Your task to perform on an android device: Add "usb-a" to the cart on target, then select checkout. Image 0: 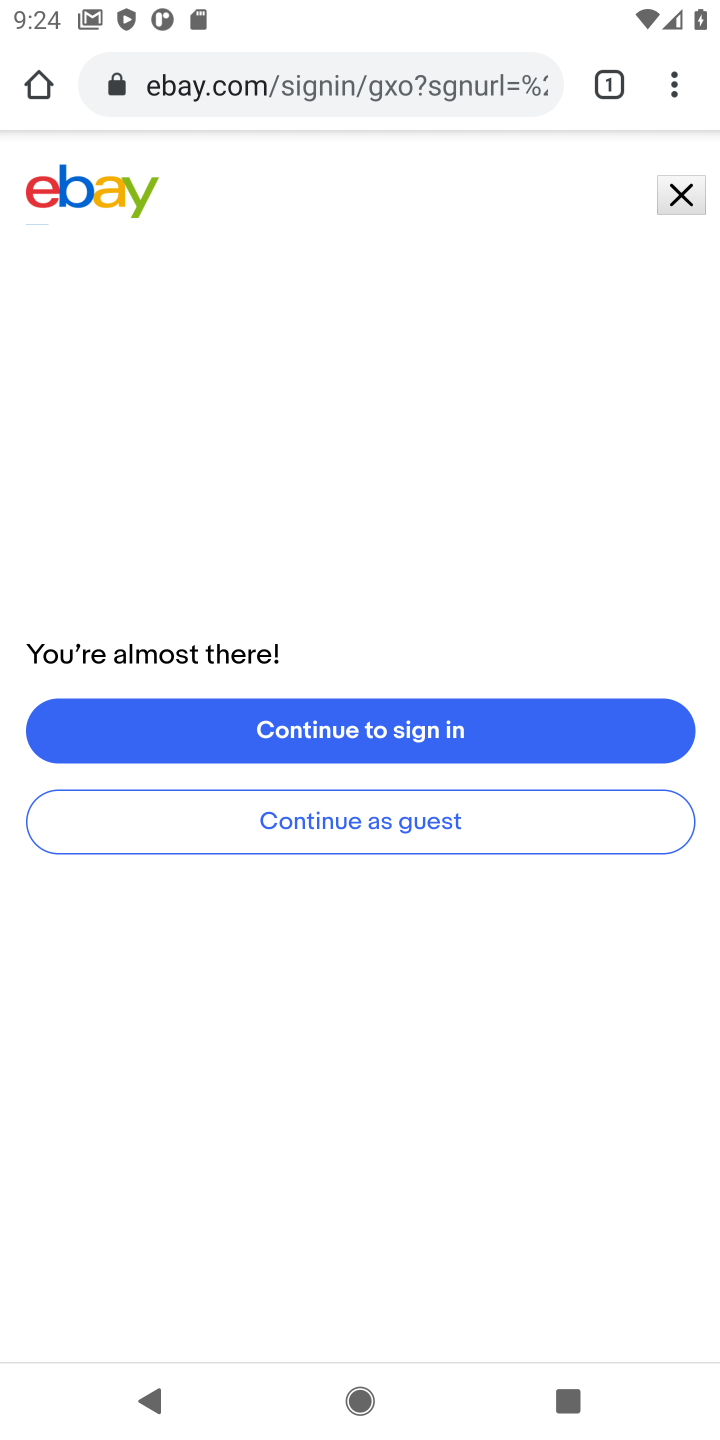
Step 0: press home button
Your task to perform on an android device: Add "usb-a" to the cart on target, then select checkout. Image 1: 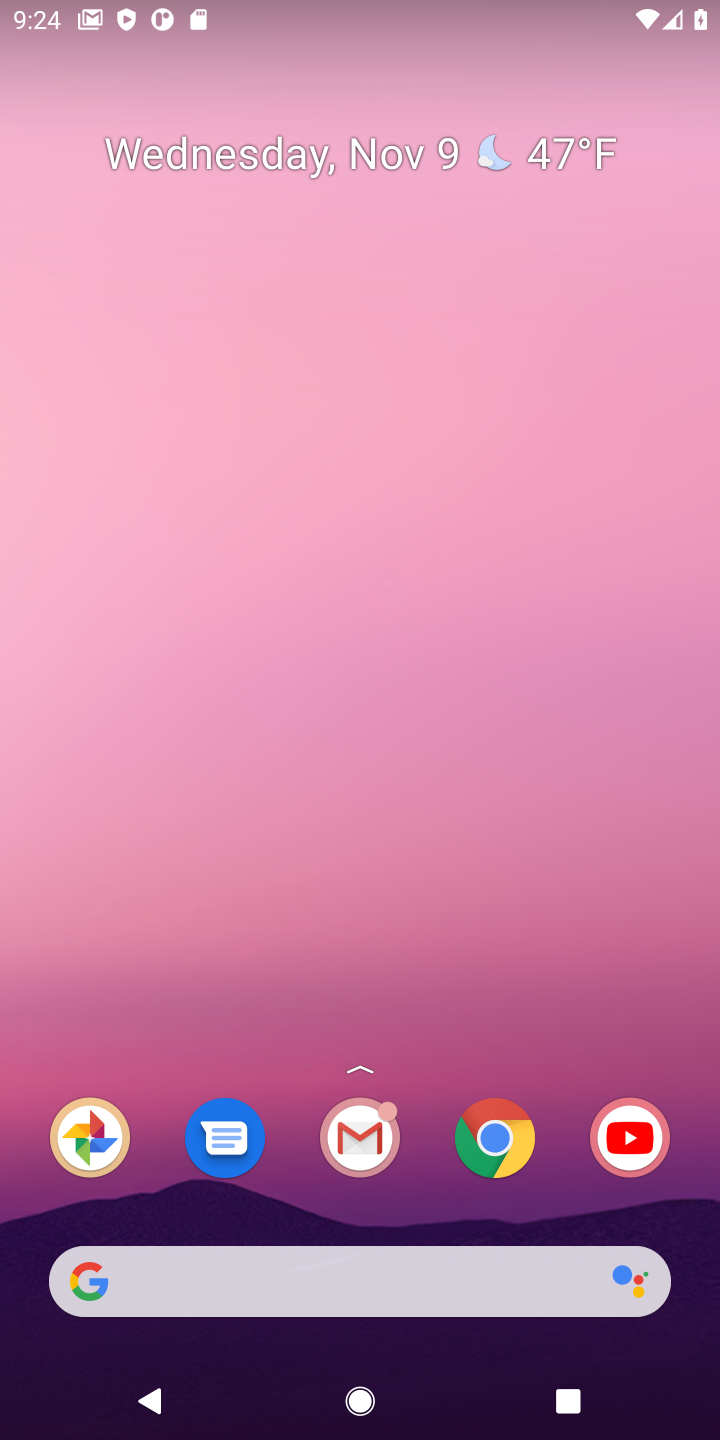
Step 1: drag from (438, 1237) to (466, 34)
Your task to perform on an android device: Add "usb-a" to the cart on target, then select checkout. Image 2: 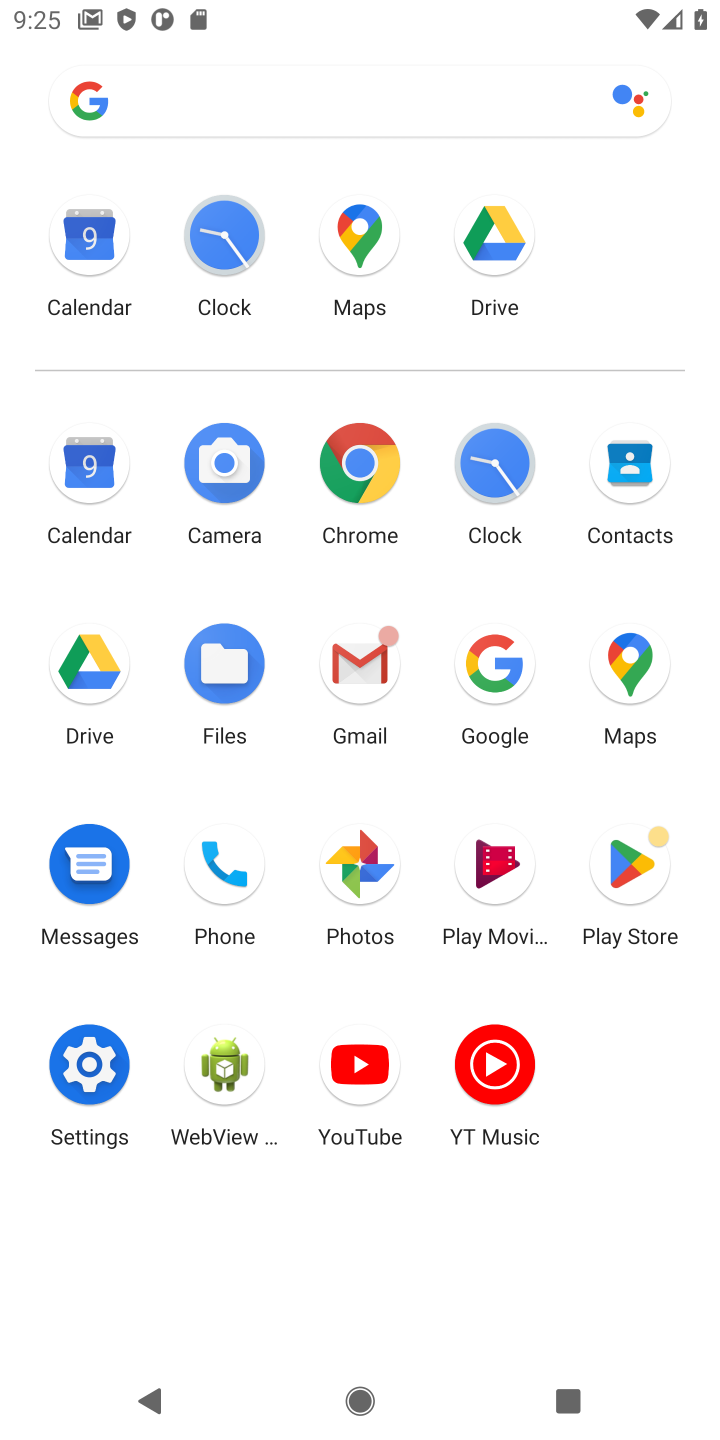
Step 2: click (367, 476)
Your task to perform on an android device: Add "usb-a" to the cart on target, then select checkout. Image 3: 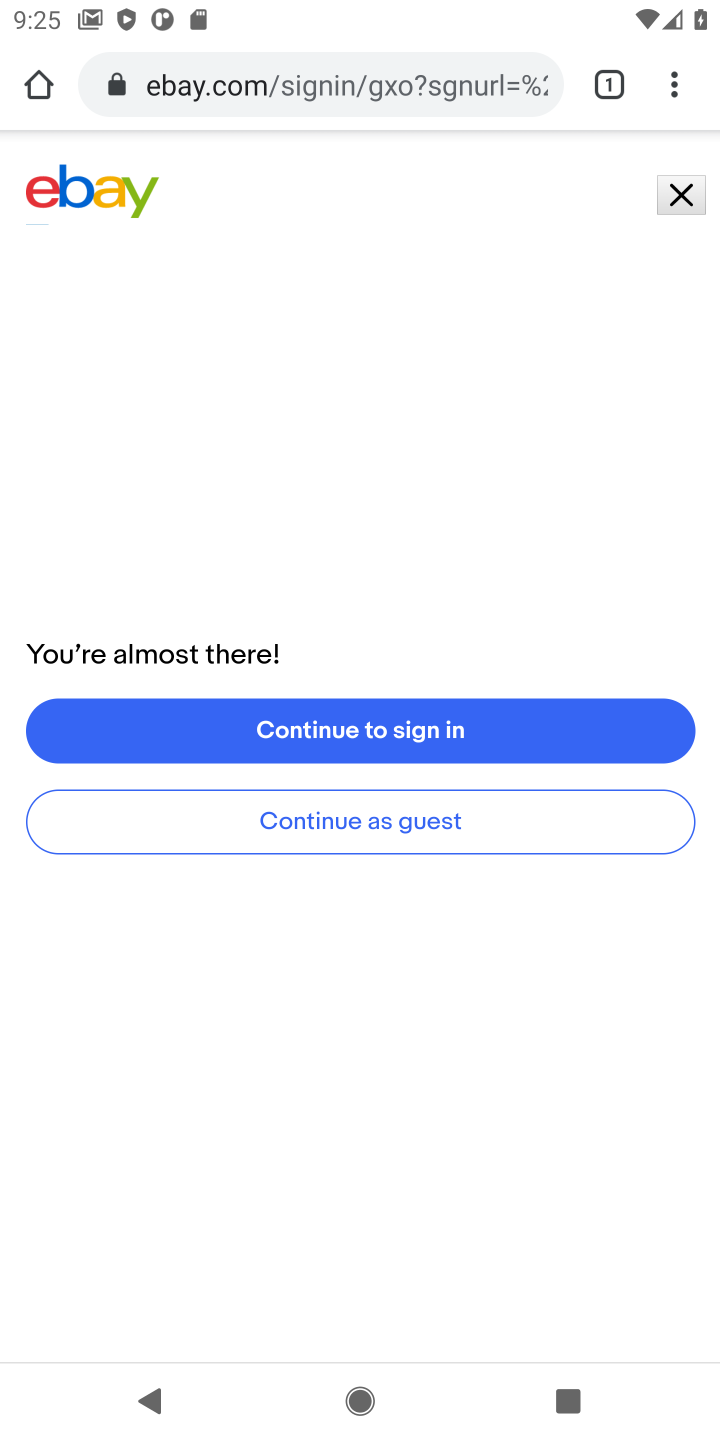
Step 3: click (320, 69)
Your task to perform on an android device: Add "usb-a" to the cart on target, then select checkout. Image 4: 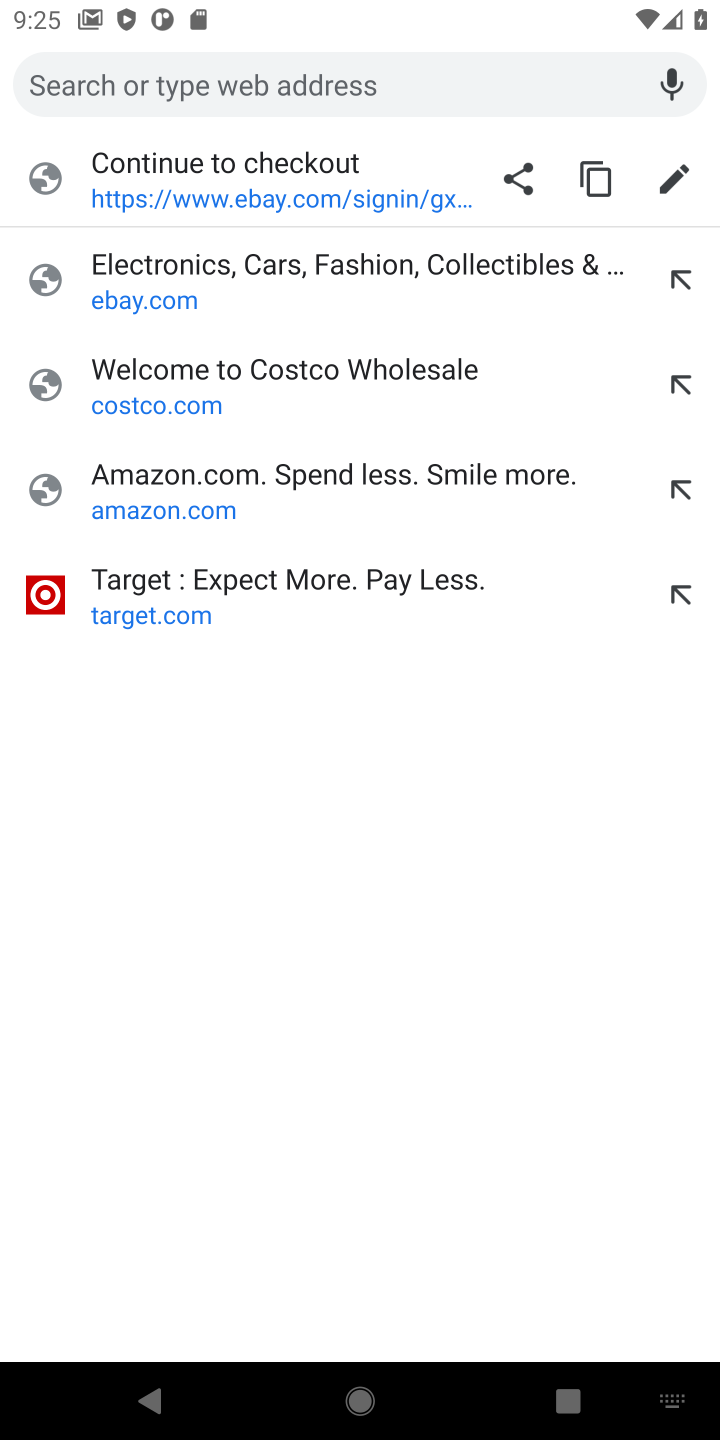
Step 4: type "target.com"
Your task to perform on an android device: Add "usb-a" to the cart on target, then select checkout. Image 5: 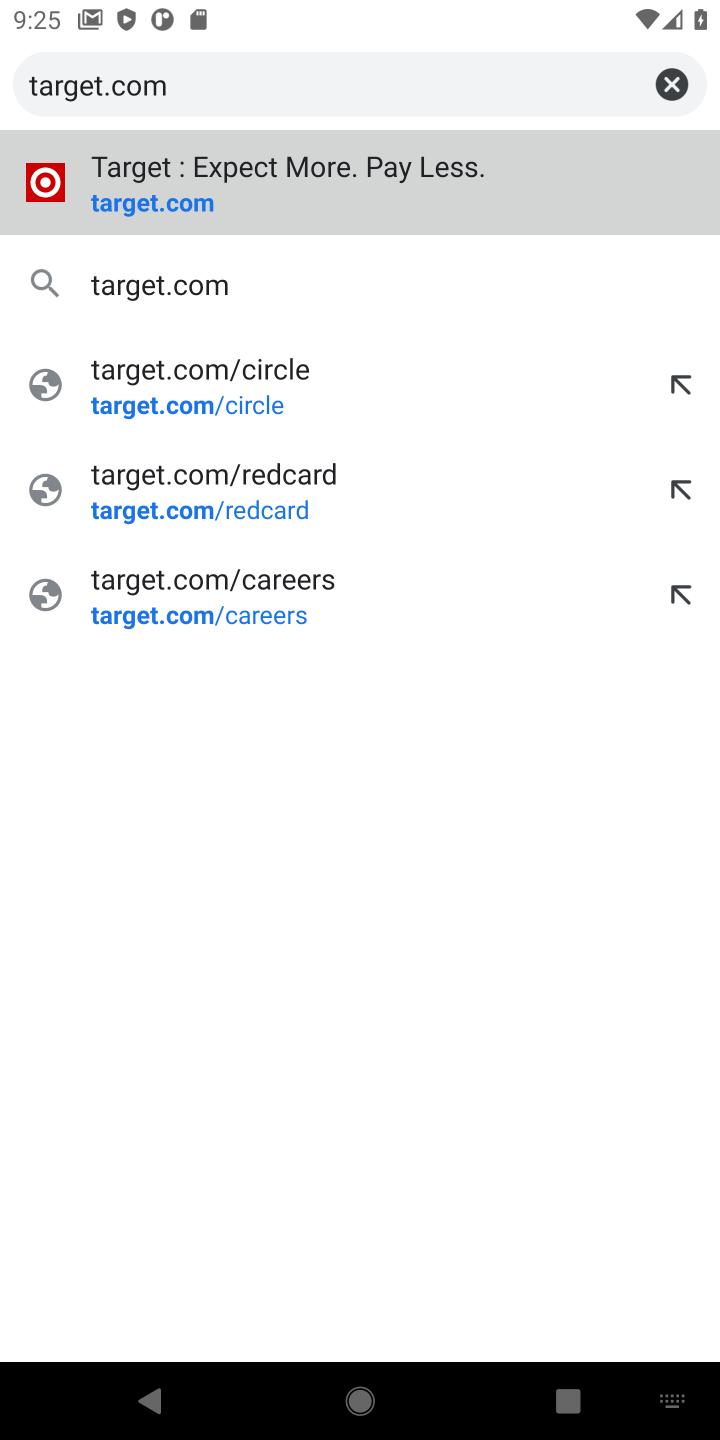
Step 5: press enter
Your task to perform on an android device: Add "usb-a" to the cart on target, then select checkout. Image 6: 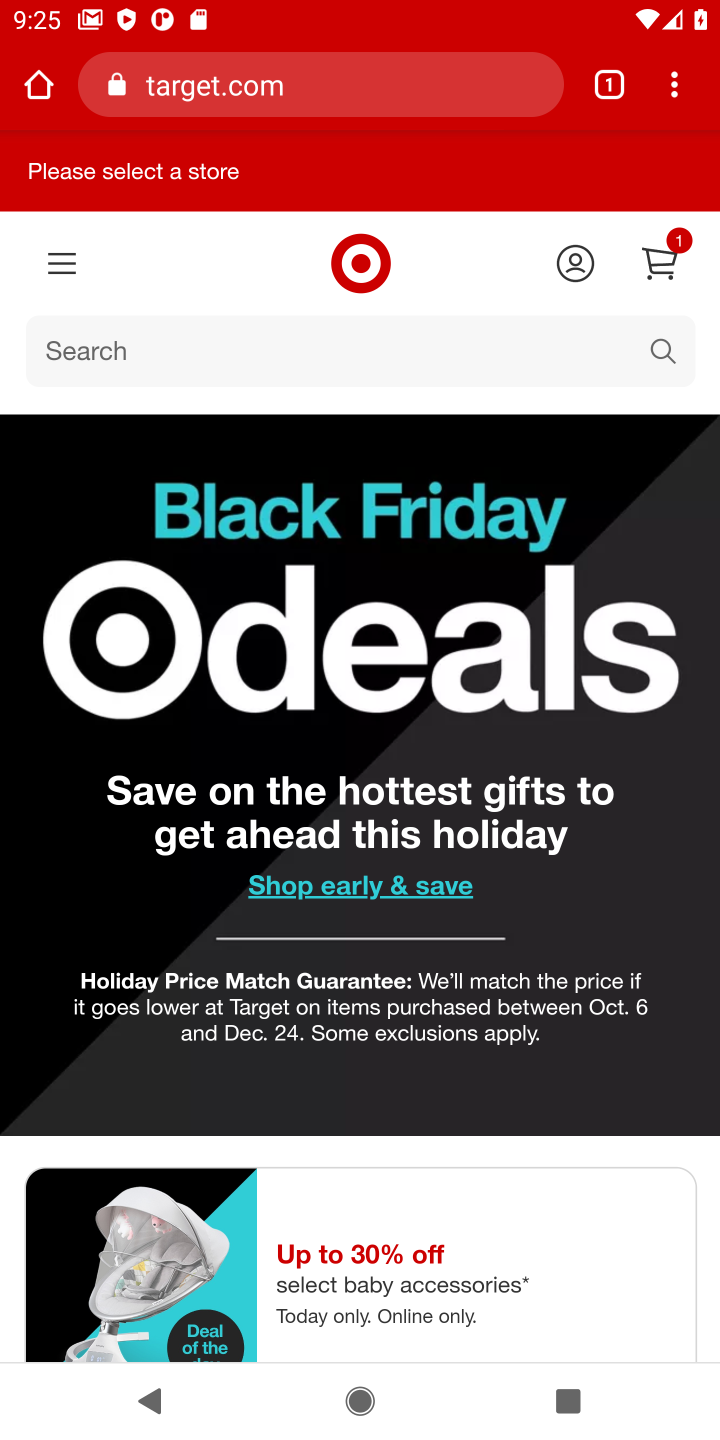
Step 6: click (366, 353)
Your task to perform on an android device: Add "usb-a" to the cart on target, then select checkout. Image 7: 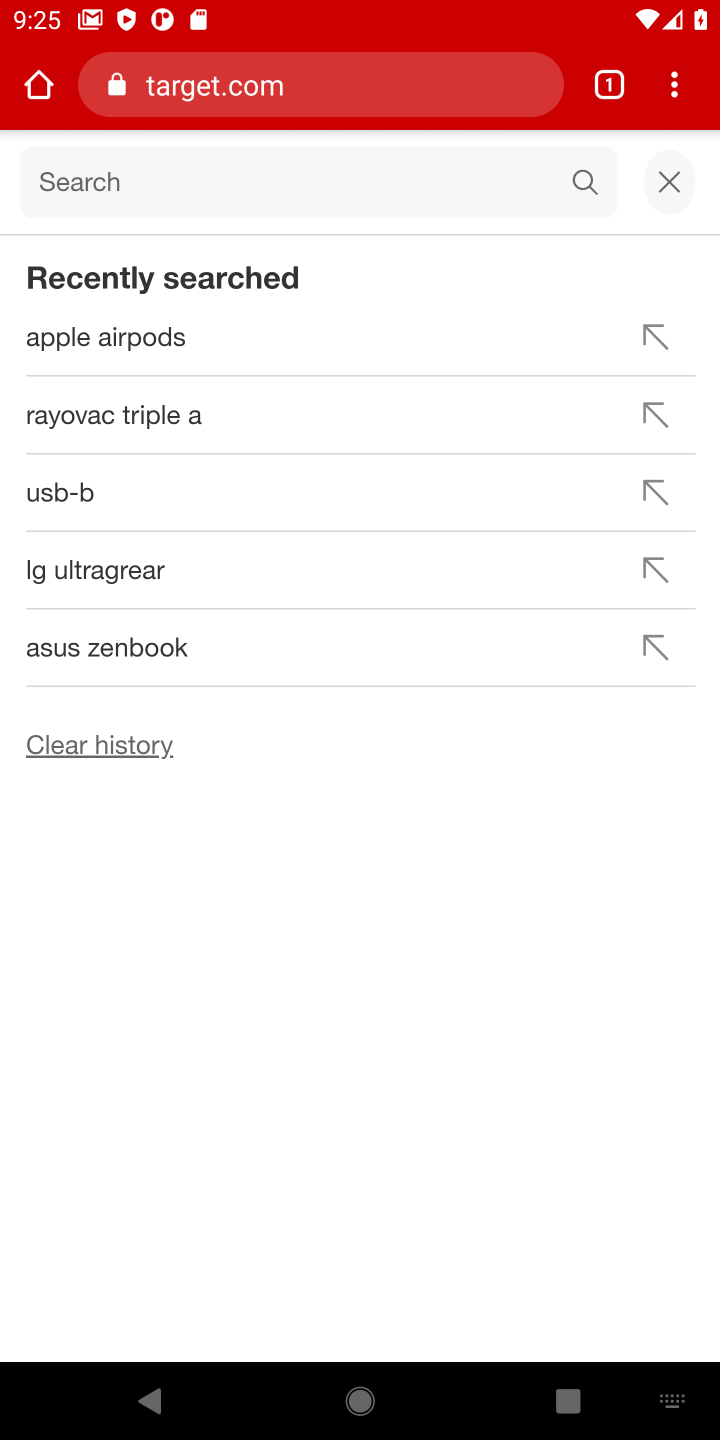
Step 7: type "usb-a"
Your task to perform on an android device: Add "usb-a" to the cart on target, then select checkout. Image 8: 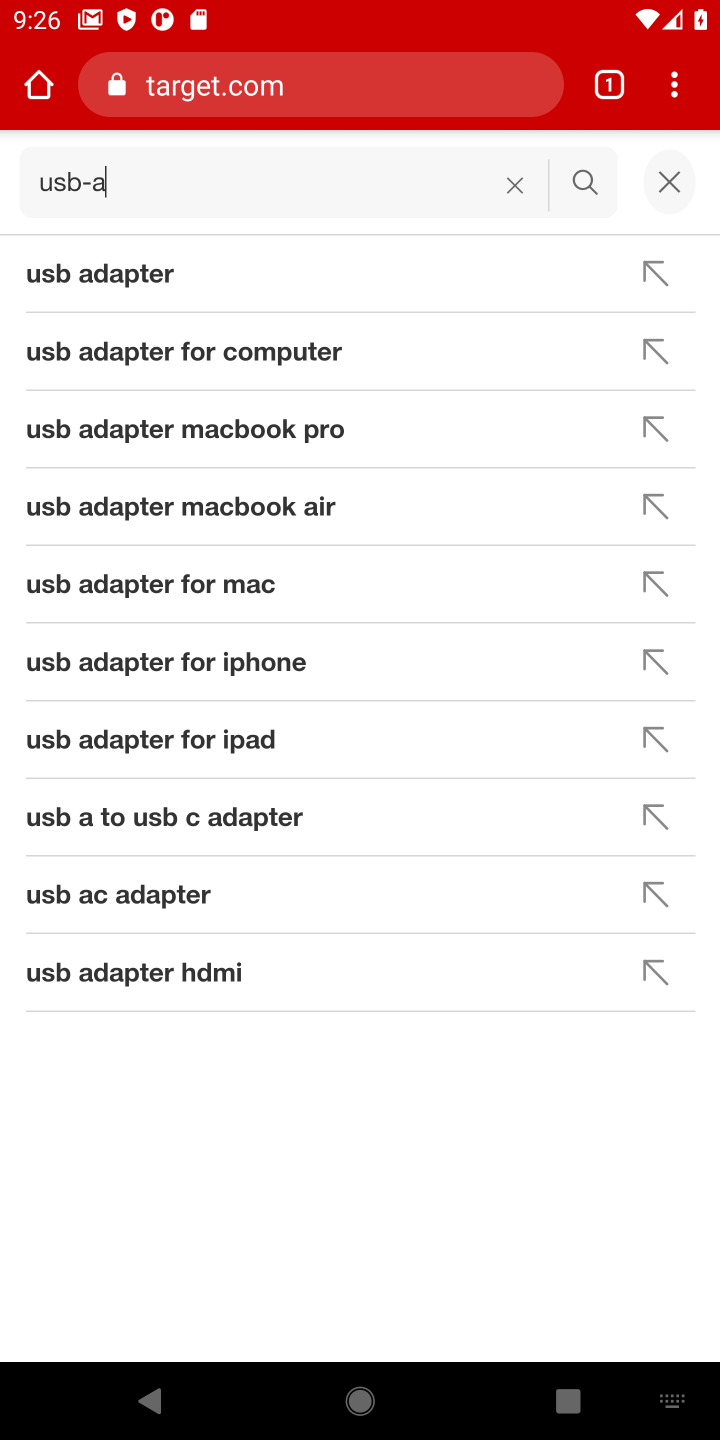
Step 8: press enter
Your task to perform on an android device: Add "usb-a" to the cart on target, then select checkout. Image 9: 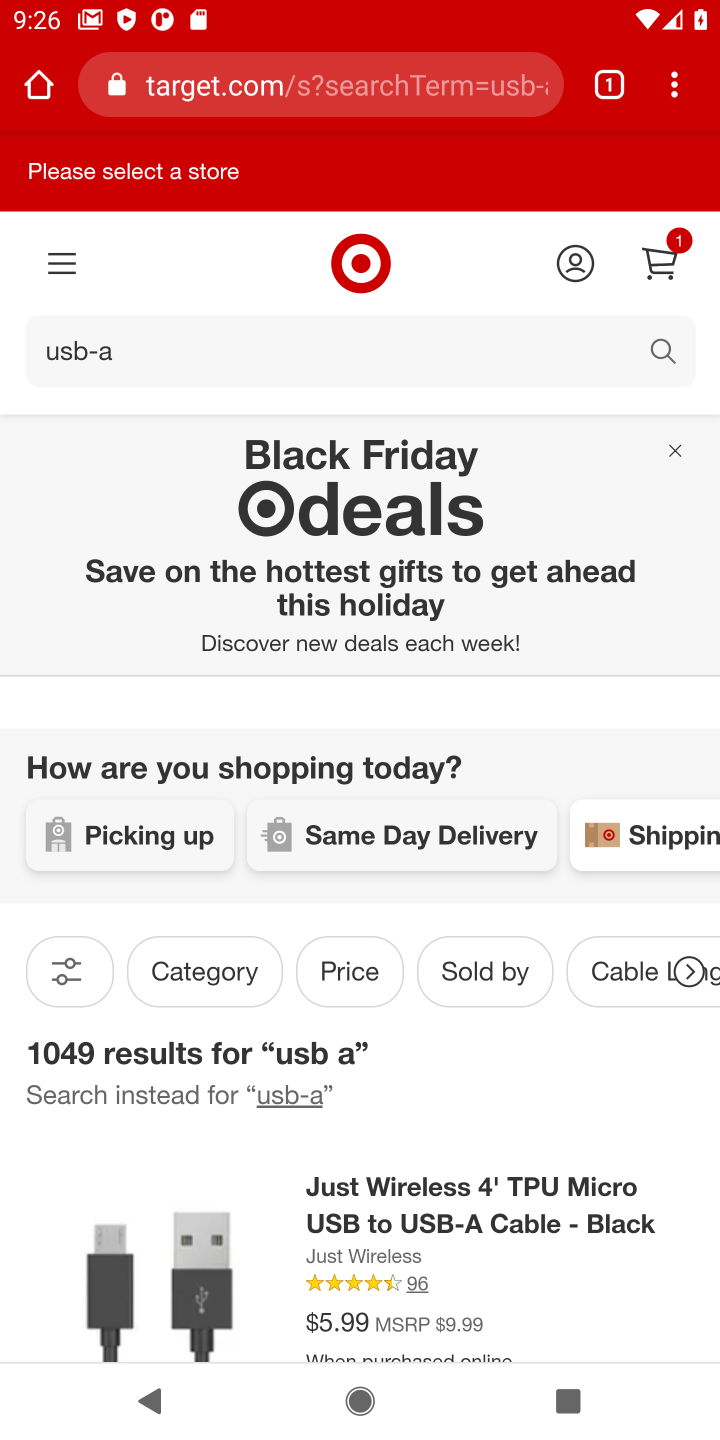
Step 9: drag from (408, 1300) to (286, 695)
Your task to perform on an android device: Add "usb-a" to the cart on target, then select checkout. Image 10: 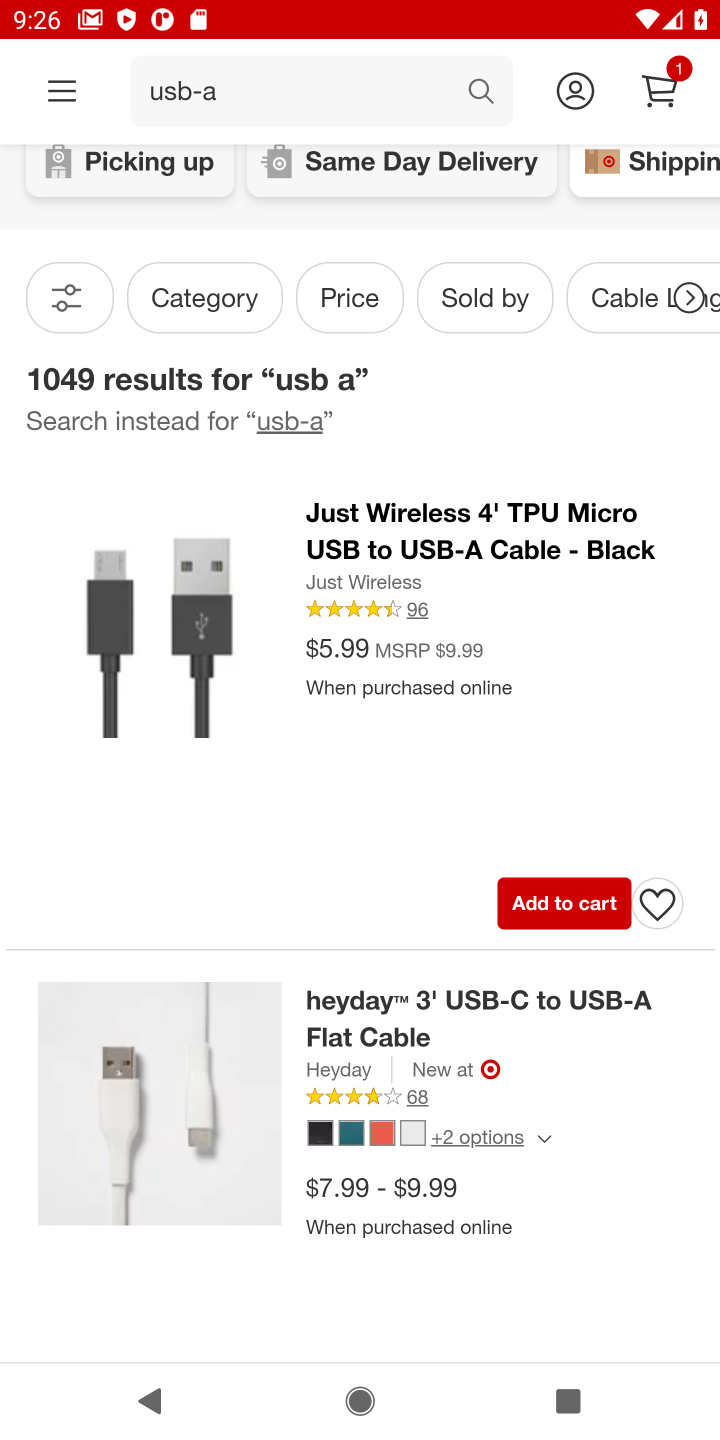
Step 10: click (571, 892)
Your task to perform on an android device: Add "usb-a" to the cart on target, then select checkout. Image 11: 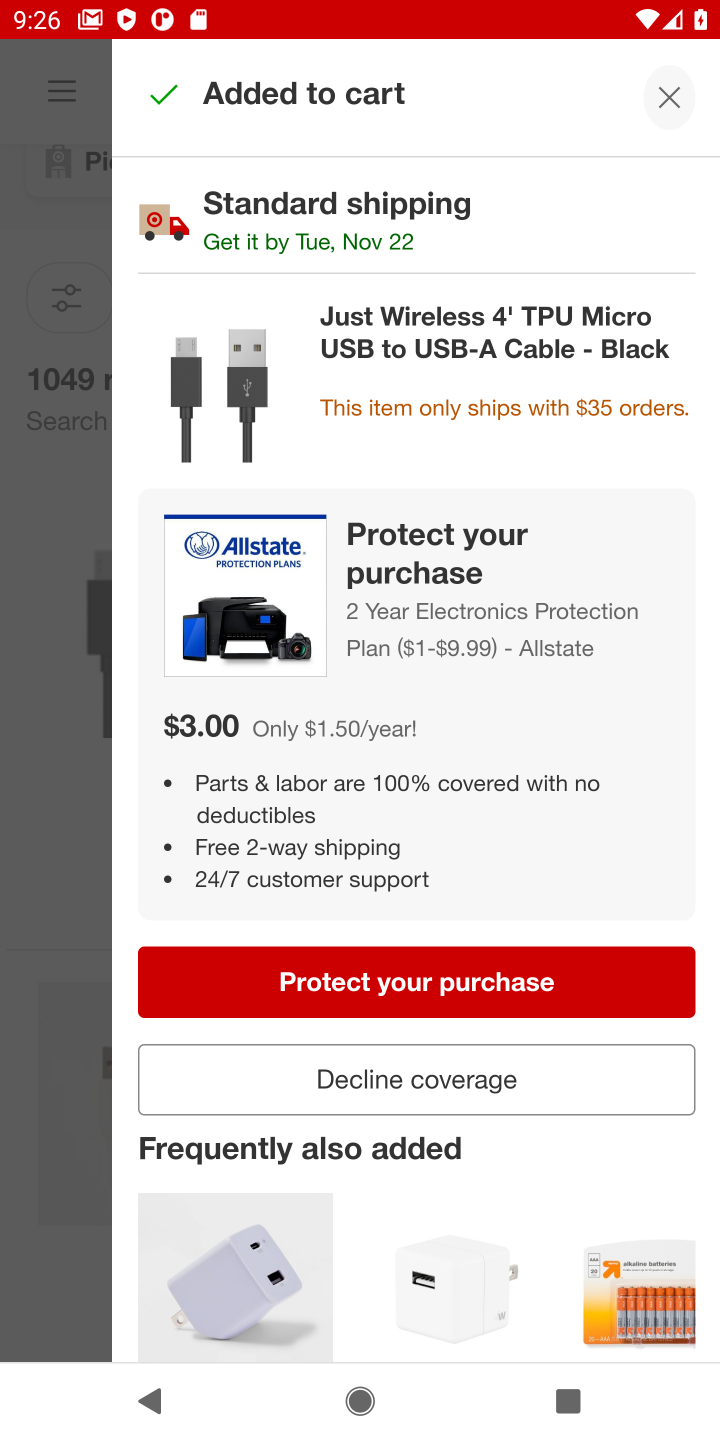
Step 11: click (657, 102)
Your task to perform on an android device: Add "usb-a" to the cart on target, then select checkout. Image 12: 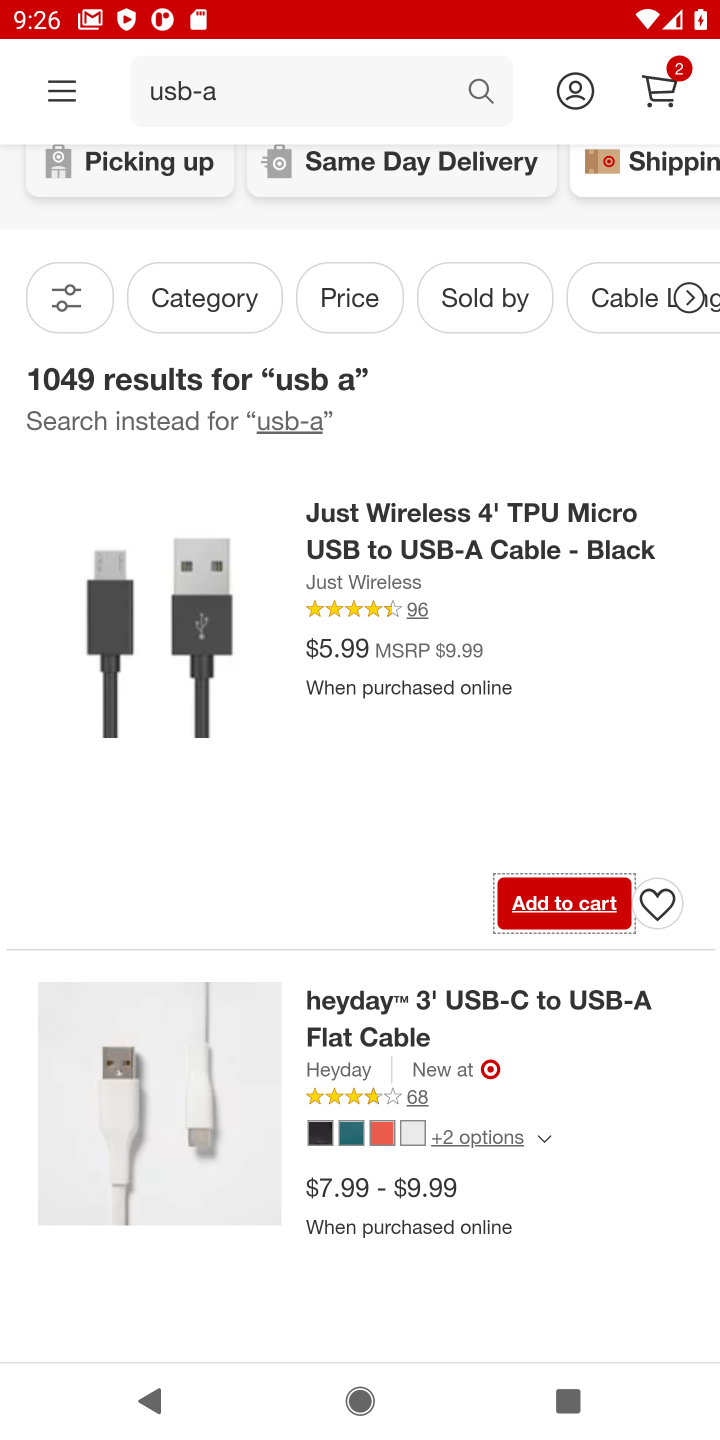
Step 12: click (670, 71)
Your task to perform on an android device: Add "usb-a" to the cart on target, then select checkout. Image 13: 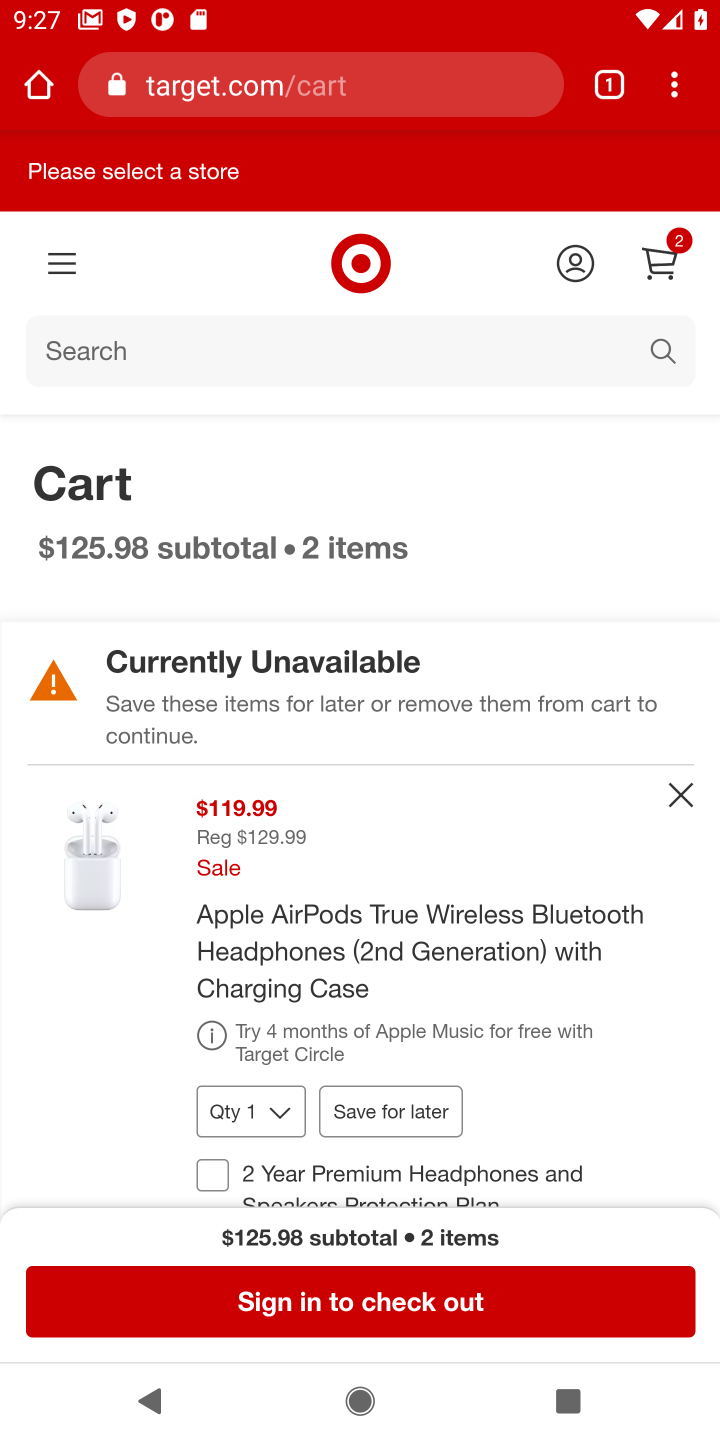
Step 13: click (458, 1314)
Your task to perform on an android device: Add "usb-a" to the cart on target, then select checkout. Image 14: 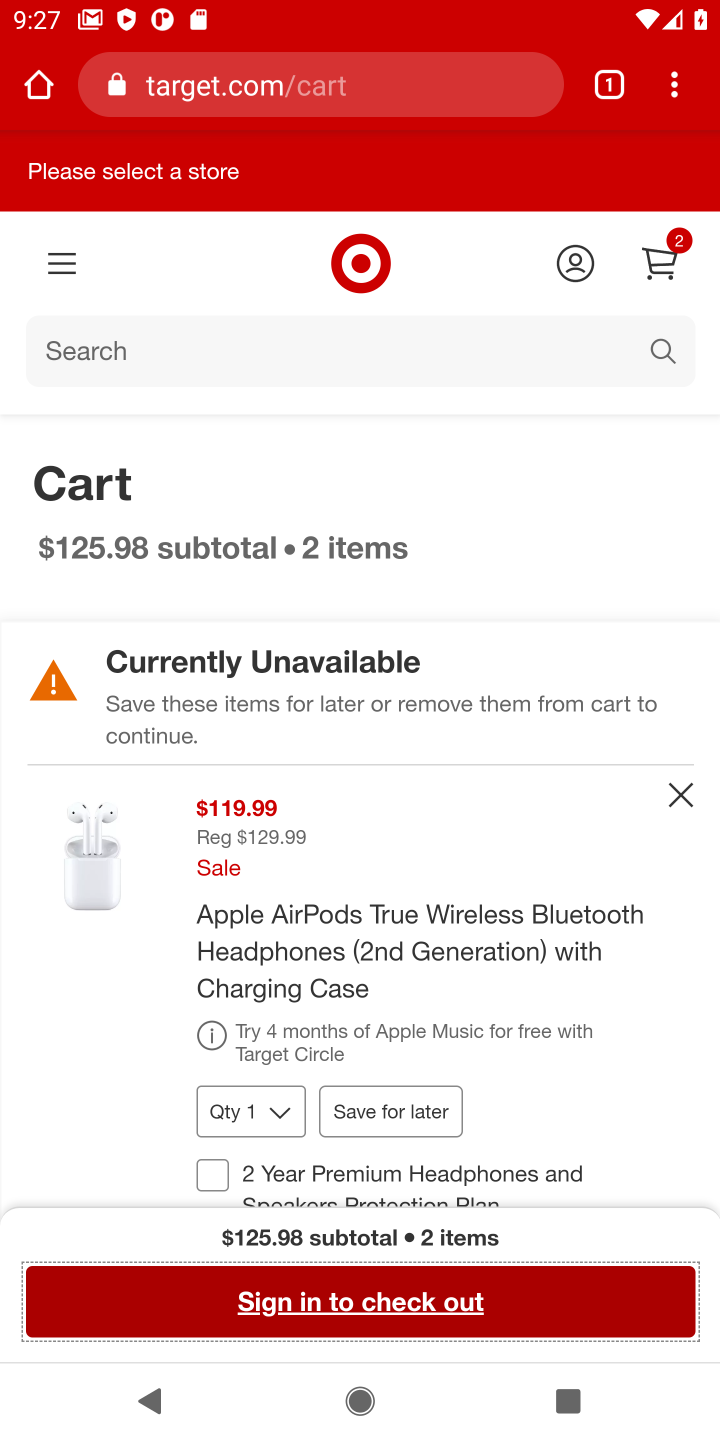
Step 14: click (409, 1308)
Your task to perform on an android device: Add "usb-a" to the cart on target, then select checkout. Image 15: 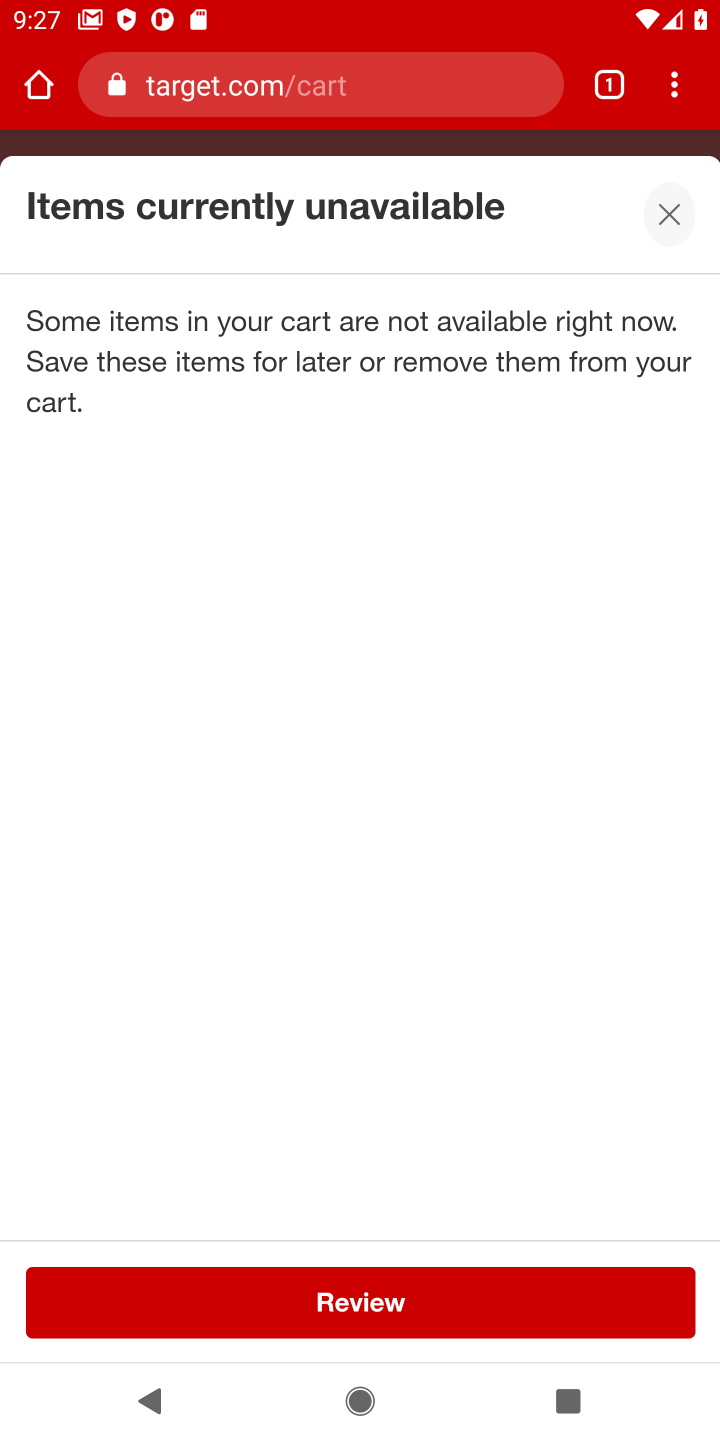
Step 15: task complete